Your task to perform on an android device: Play the last video I watched on Youtube Image 0: 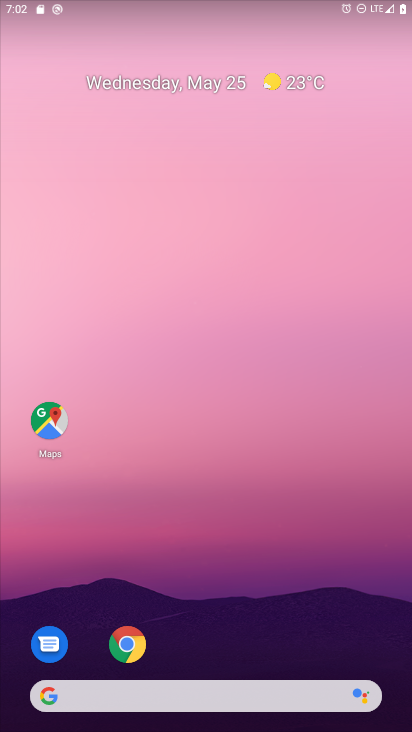
Step 0: drag from (328, 635) to (269, 32)
Your task to perform on an android device: Play the last video I watched on Youtube Image 1: 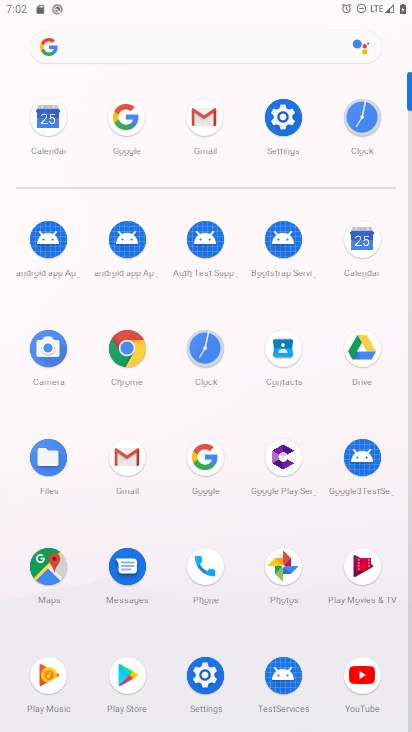
Step 1: click (357, 671)
Your task to perform on an android device: Play the last video I watched on Youtube Image 2: 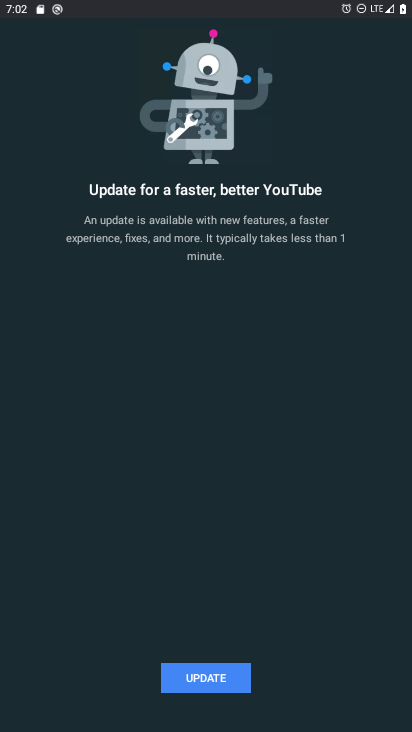
Step 2: click (176, 691)
Your task to perform on an android device: Play the last video I watched on Youtube Image 3: 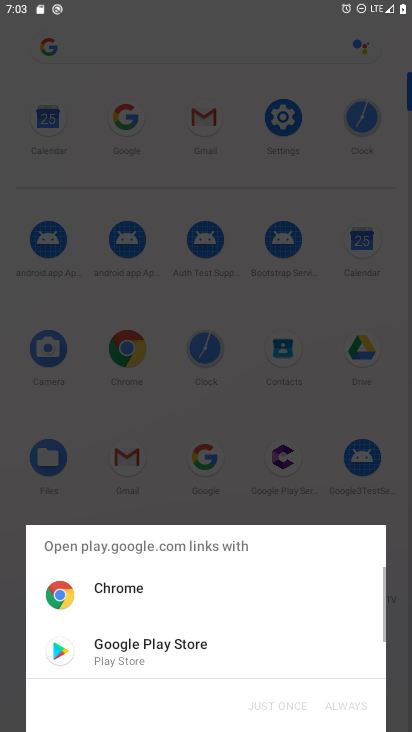
Step 3: click (182, 669)
Your task to perform on an android device: Play the last video I watched on Youtube Image 4: 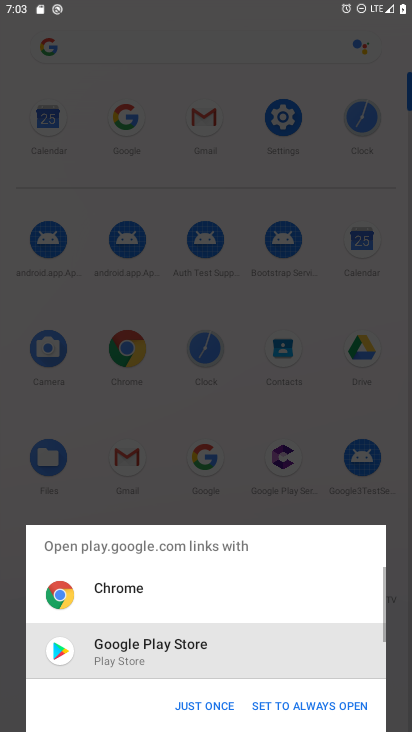
Step 4: click (199, 702)
Your task to perform on an android device: Play the last video I watched on Youtube Image 5: 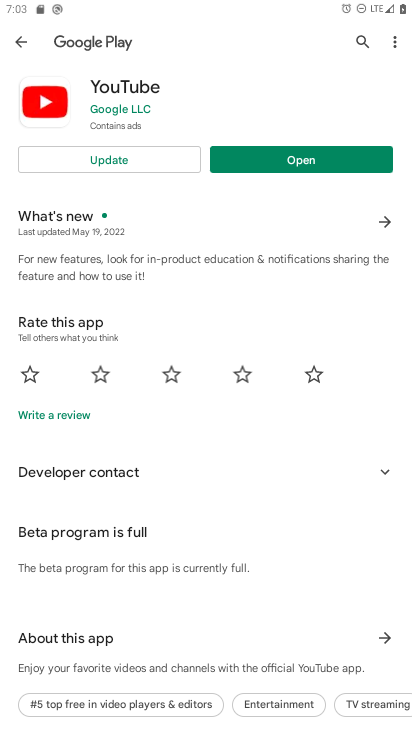
Step 5: click (171, 151)
Your task to perform on an android device: Play the last video I watched on Youtube Image 6: 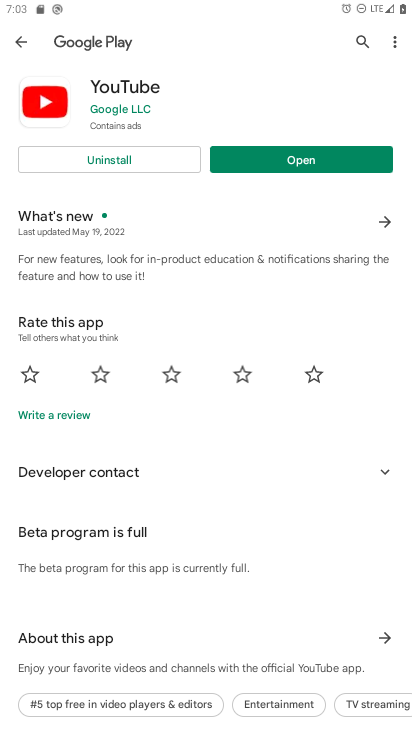
Step 6: click (236, 169)
Your task to perform on an android device: Play the last video I watched on Youtube Image 7: 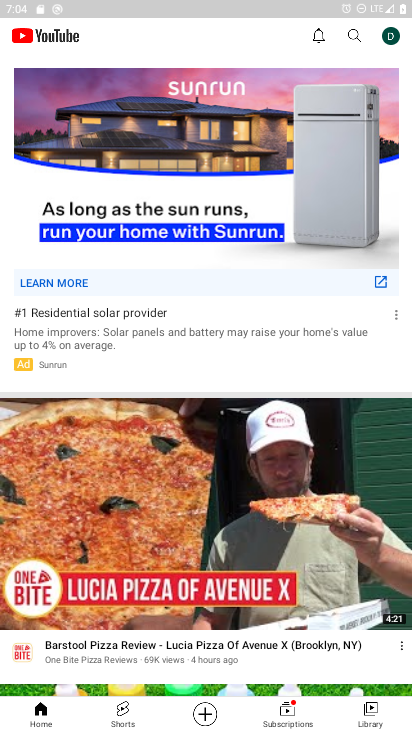
Step 7: click (359, 713)
Your task to perform on an android device: Play the last video I watched on Youtube Image 8: 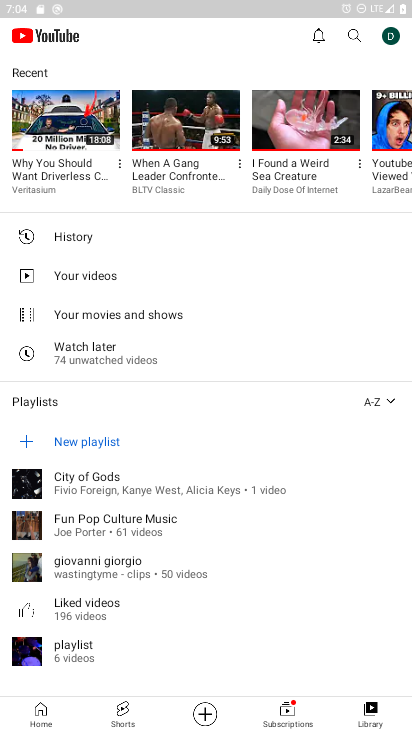
Step 8: click (68, 136)
Your task to perform on an android device: Play the last video I watched on Youtube Image 9: 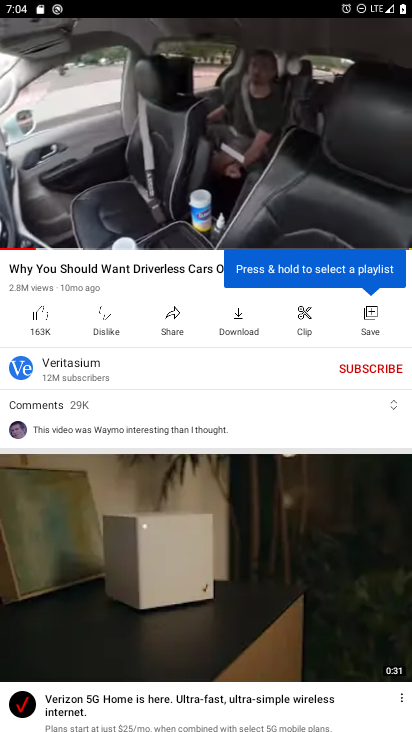
Step 9: click (200, 120)
Your task to perform on an android device: Play the last video I watched on Youtube Image 10: 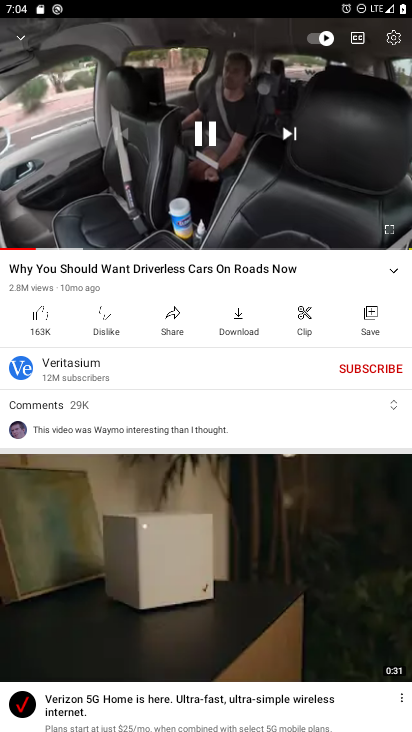
Step 10: click (207, 125)
Your task to perform on an android device: Play the last video I watched on Youtube Image 11: 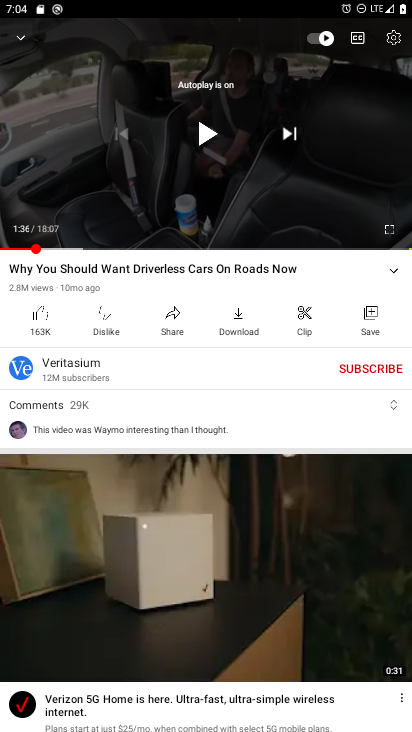
Step 11: task complete